Your task to perform on an android device: Open Chrome and go to the settings page Image 0: 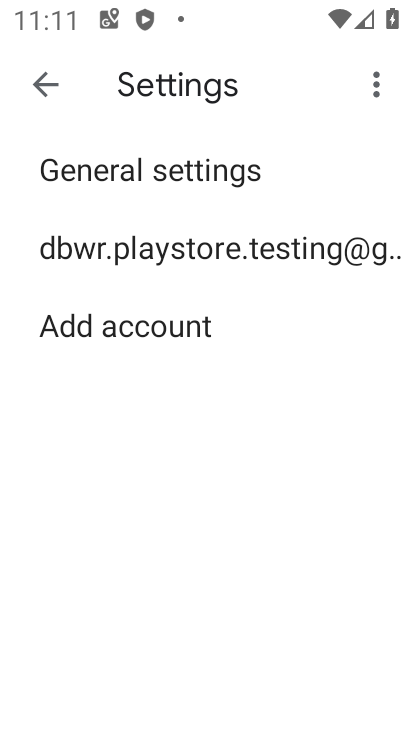
Step 0: press home button
Your task to perform on an android device: Open Chrome and go to the settings page Image 1: 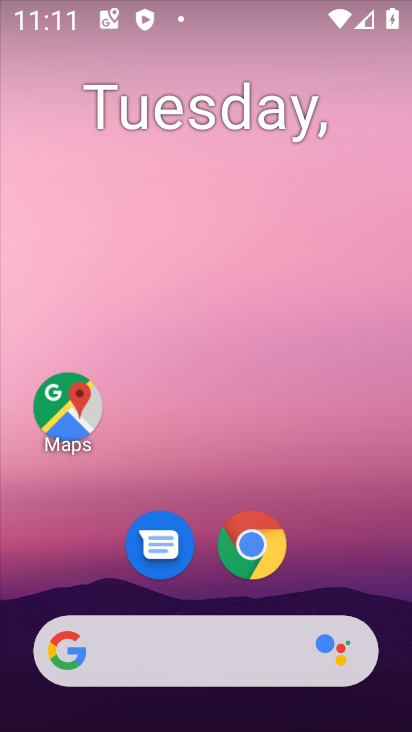
Step 1: click (259, 540)
Your task to perform on an android device: Open Chrome and go to the settings page Image 2: 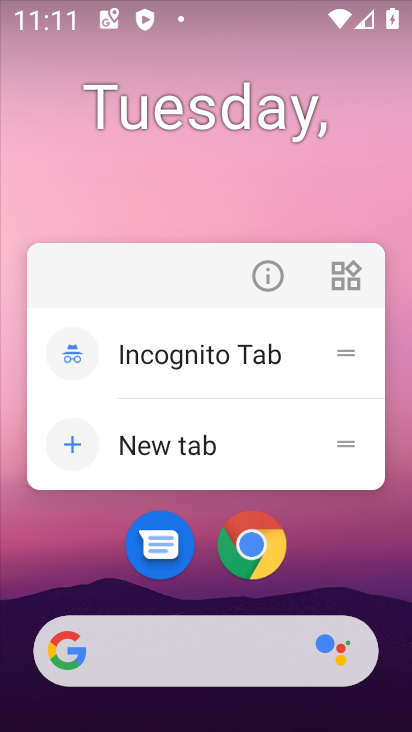
Step 2: click (259, 540)
Your task to perform on an android device: Open Chrome and go to the settings page Image 3: 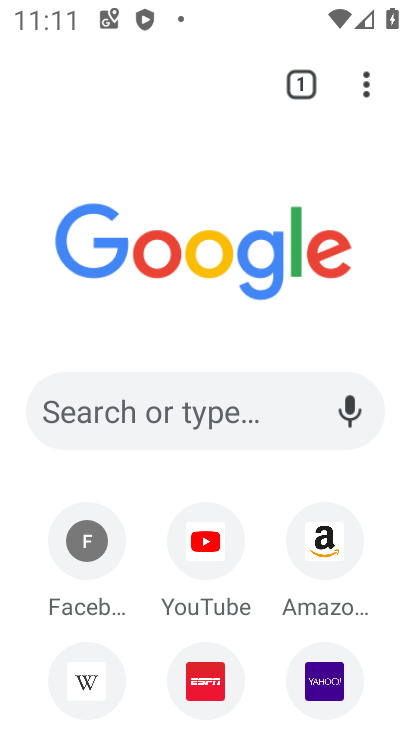
Step 3: click (365, 69)
Your task to perform on an android device: Open Chrome and go to the settings page Image 4: 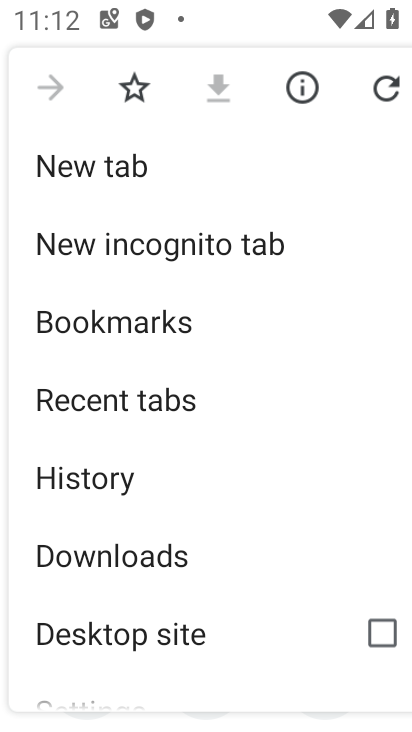
Step 4: drag from (212, 418) to (208, 546)
Your task to perform on an android device: Open Chrome and go to the settings page Image 5: 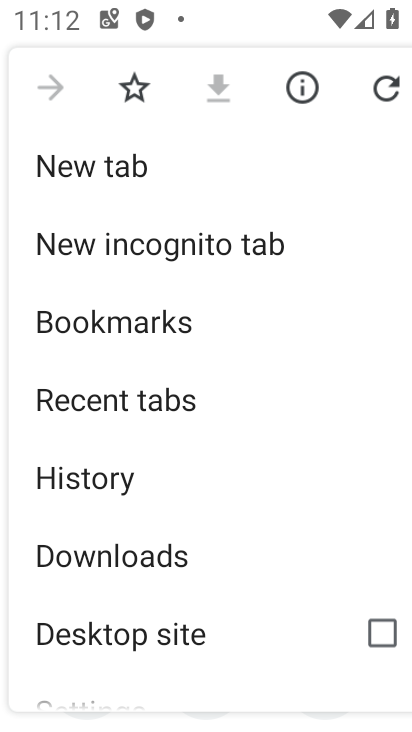
Step 5: drag from (236, 562) to (246, 391)
Your task to perform on an android device: Open Chrome and go to the settings page Image 6: 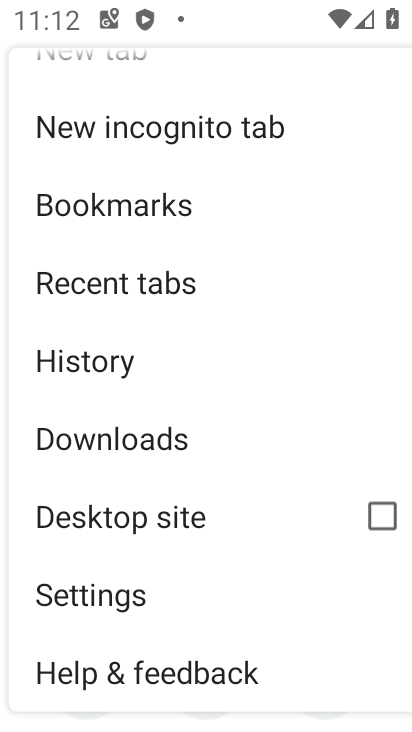
Step 6: click (174, 589)
Your task to perform on an android device: Open Chrome and go to the settings page Image 7: 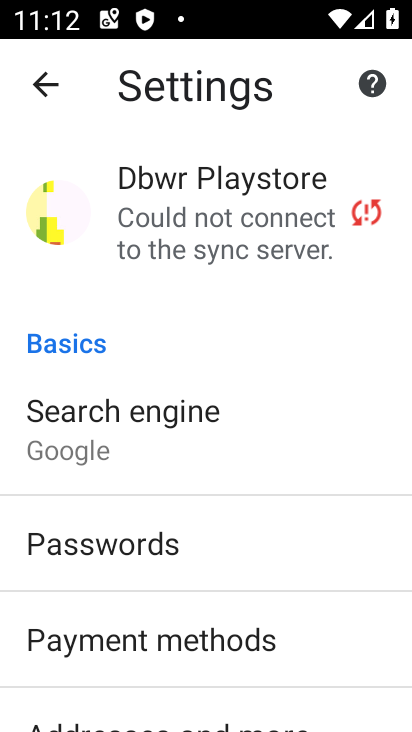
Step 7: task complete